Your task to perform on an android device: Show me popular games on the Play Store Image 0: 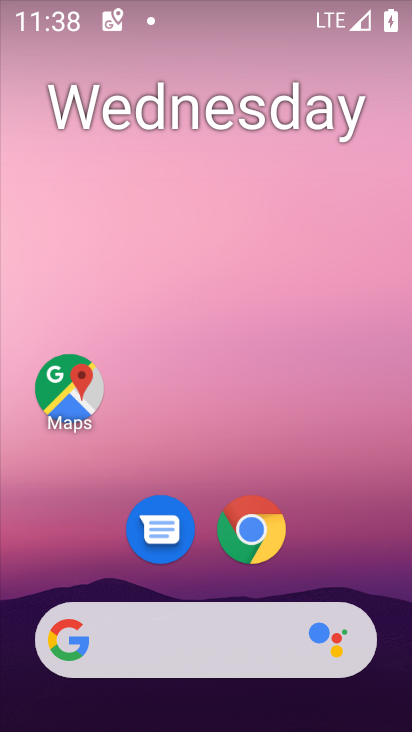
Step 0: drag from (387, 533) to (334, 108)
Your task to perform on an android device: Show me popular games on the Play Store Image 1: 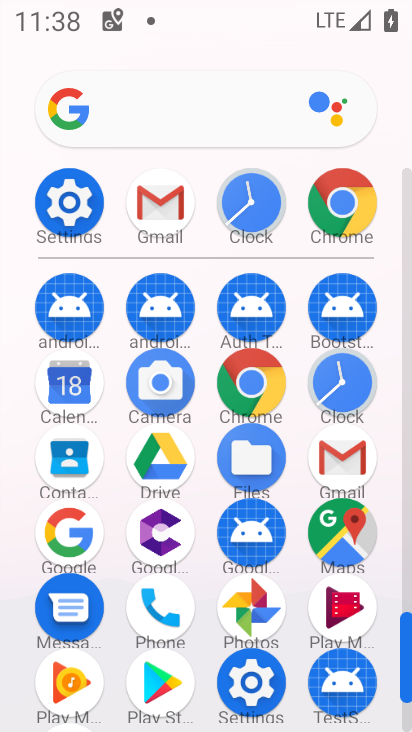
Step 1: click (404, 588)
Your task to perform on an android device: Show me popular games on the Play Store Image 2: 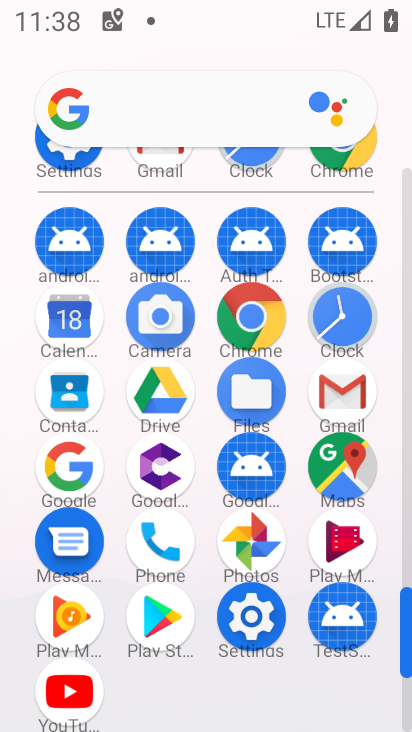
Step 2: click (161, 617)
Your task to perform on an android device: Show me popular games on the Play Store Image 3: 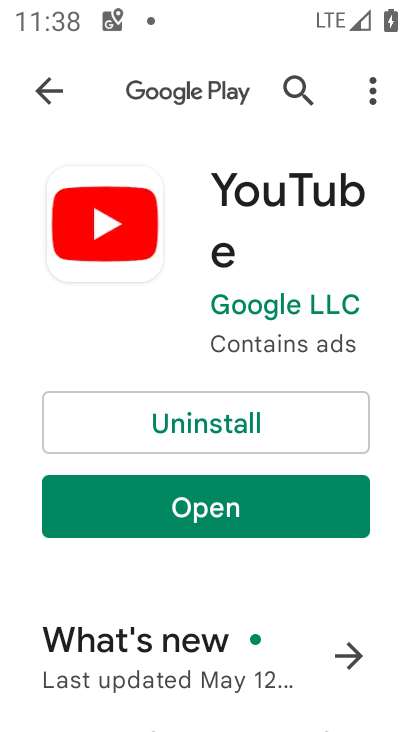
Step 3: press back button
Your task to perform on an android device: Show me popular games on the Play Store Image 4: 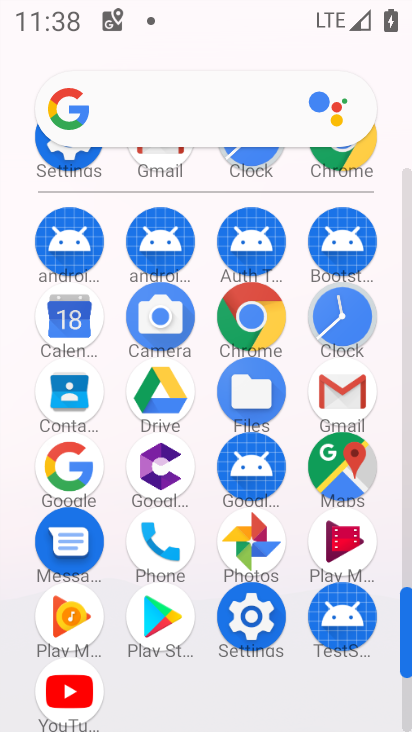
Step 4: click (166, 611)
Your task to perform on an android device: Show me popular games on the Play Store Image 5: 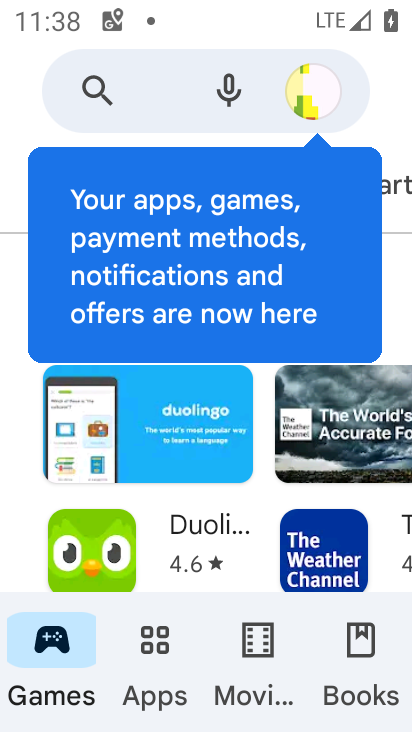
Step 5: drag from (260, 590) to (243, 157)
Your task to perform on an android device: Show me popular games on the Play Store Image 6: 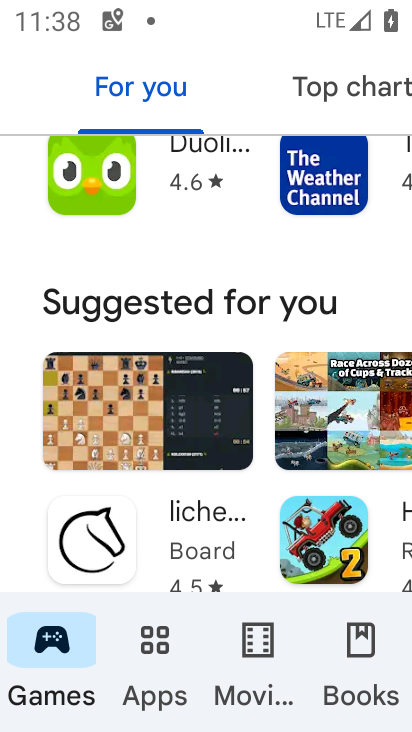
Step 6: drag from (252, 542) to (232, 150)
Your task to perform on an android device: Show me popular games on the Play Store Image 7: 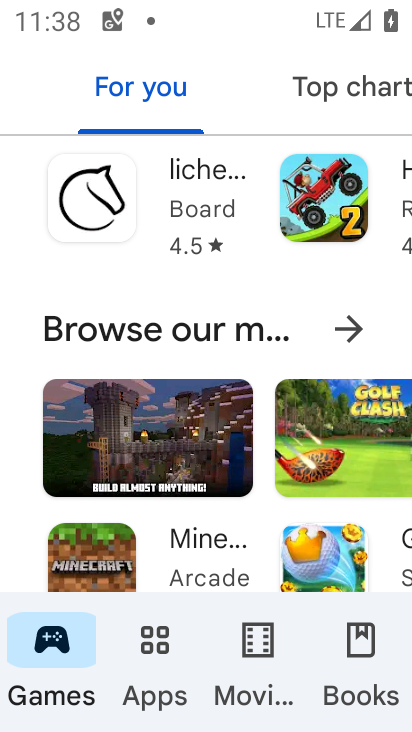
Step 7: drag from (261, 513) to (251, 177)
Your task to perform on an android device: Show me popular games on the Play Store Image 8: 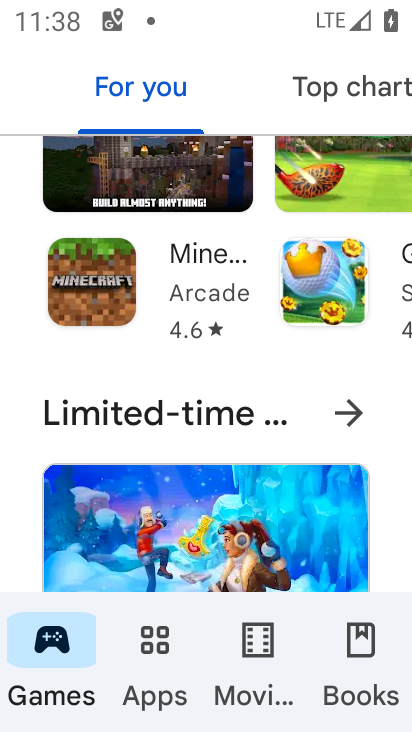
Step 8: drag from (247, 454) to (215, 134)
Your task to perform on an android device: Show me popular games on the Play Store Image 9: 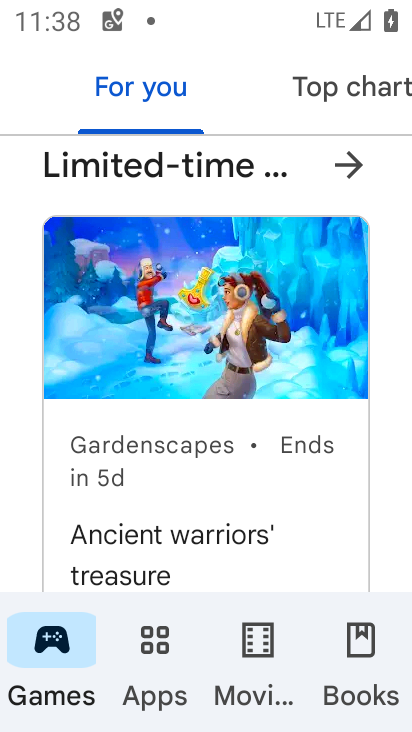
Step 9: drag from (232, 516) to (209, 103)
Your task to perform on an android device: Show me popular games on the Play Store Image 10: 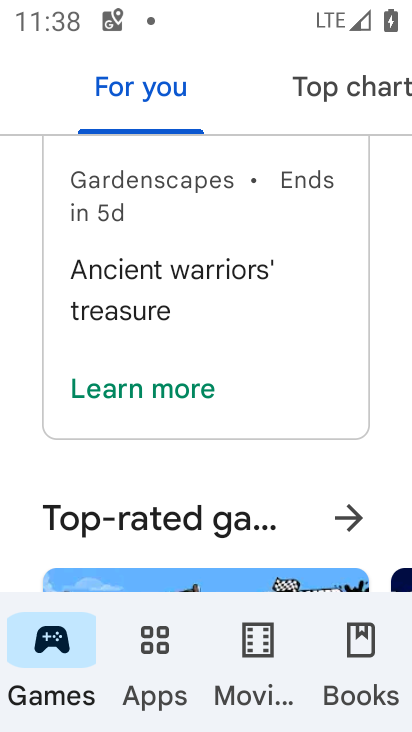
Step 10: drag from (220, 493) to (223, 275)
Your task to perform on an android device: Show me popular games on the Play Store Image 11: 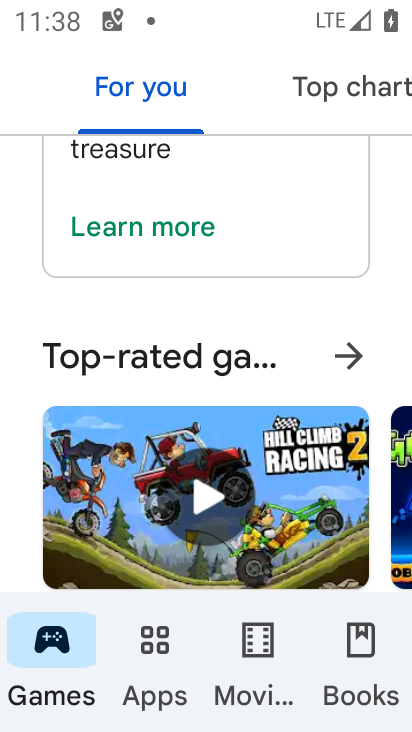
Step 11: click (355, 357)
Your task to perform on an android device: Show me popular games on the Play Store Image 12: 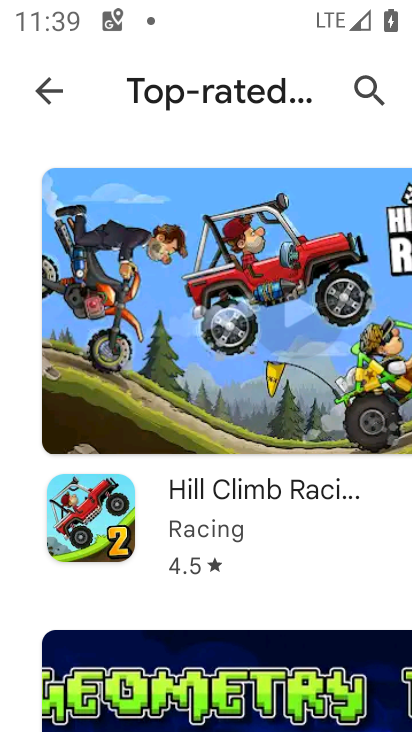
Step 12: task complete